Your task to perform on an android device: Open internet settings Image 0: 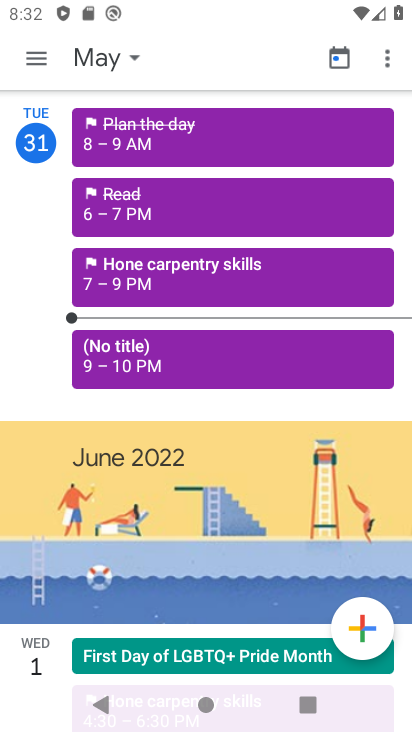
Step 0: press home button
Your task to perform on an android device: Open internet settings Image 1: 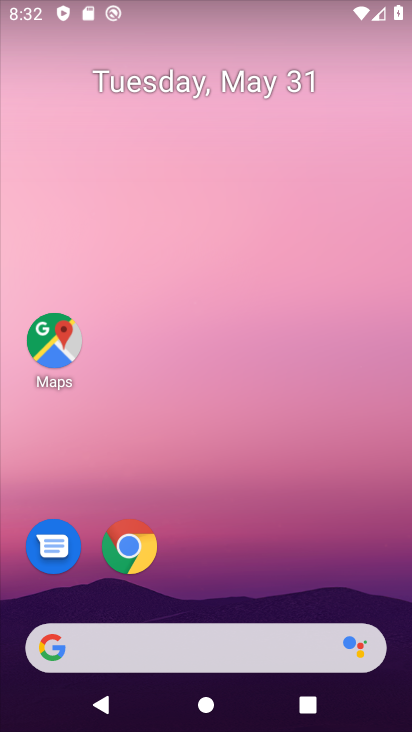
Step 1: drag from (394, 677) to (325, 101)
Your task to perform on an android device: Open internet settings Image 2: 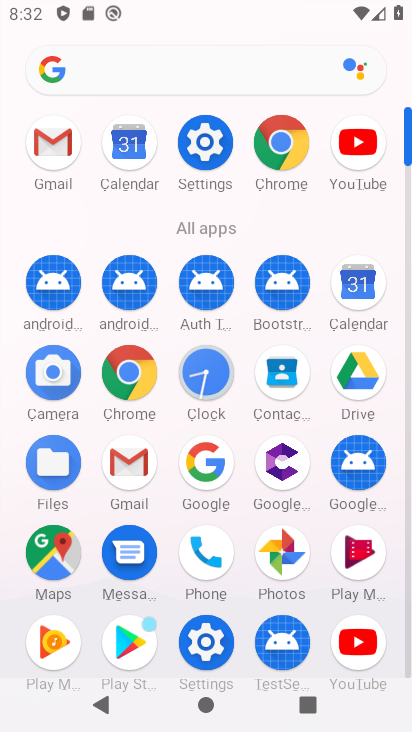
Step 2: click (184, 148)
Your task to perform on an android device: Open internet settings Image 3: 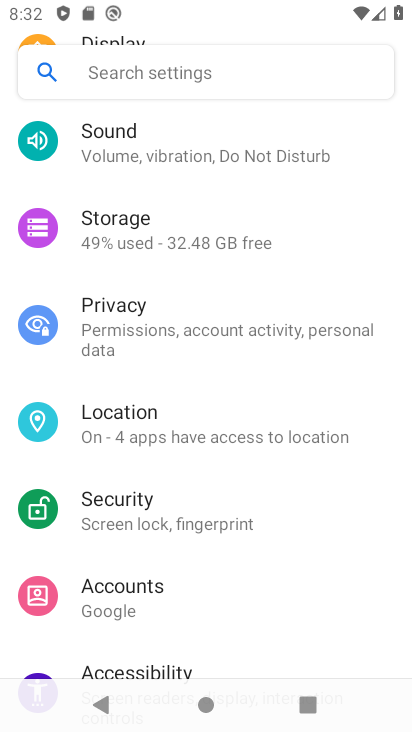
Step 3: drag from (320, 176) to (335, 629)
Your task to perform on an android device: Open internet settings Image 4: 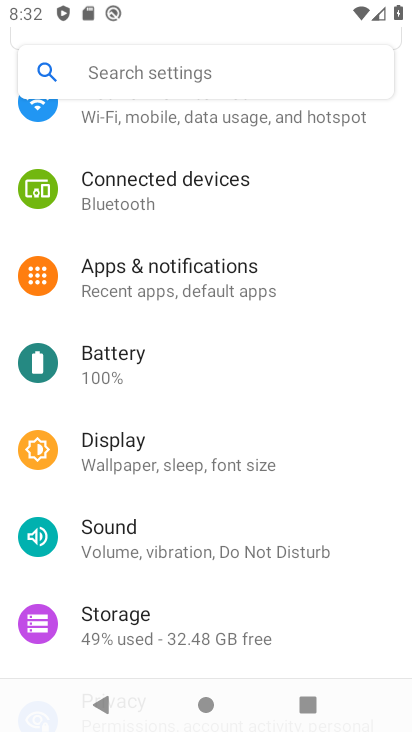
Step 4: drag from (235, 150) to (258, 564)
Your task to perform on an android device: Open internet settings Image 5: 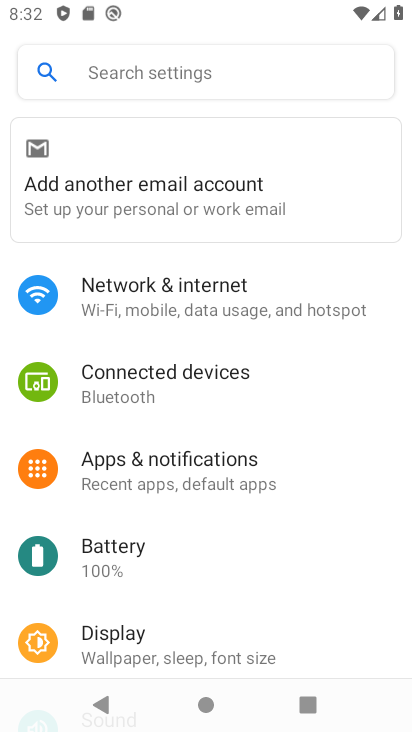
Step 5: click (115, 295)
Your task to perform on an android device: Open internet settings Image 6: 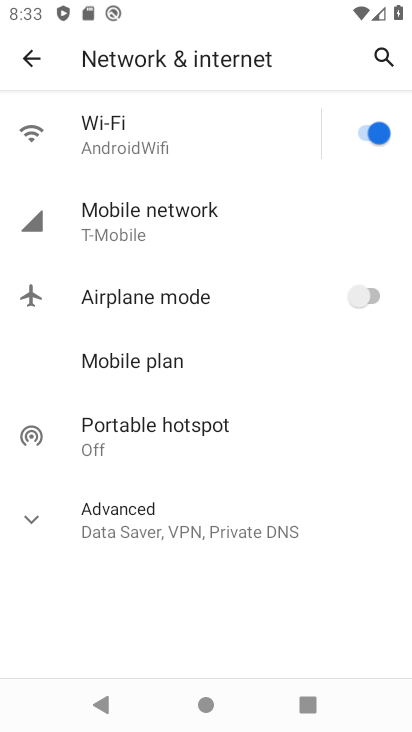
Step 6: click (37, 515)
Your task to perform on an android device: Open internet settings Image 7: 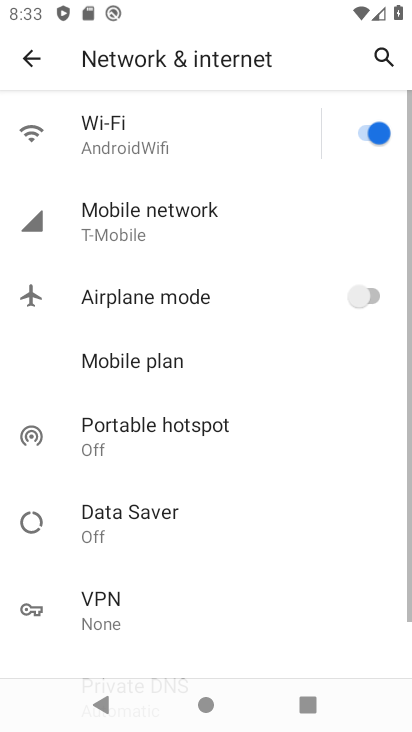
Step 7: task complete